Your task to perform on an android device: Open Chrome and go to settings Image 0: 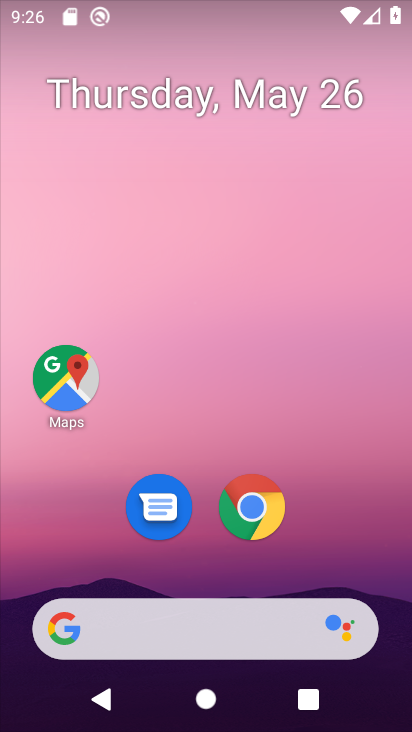
Step 0: drag from (371, 545) to (331, 151)
Your task to perform on an android device: Open Chrome and go to settings Image 1: 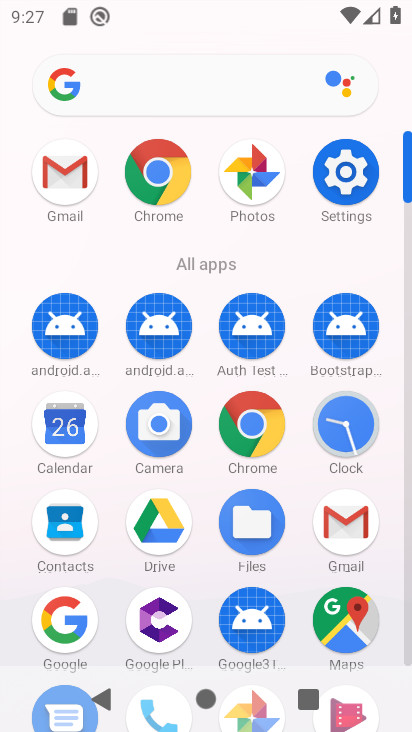
Step 1: click (255, 428)
Your task to perform on an android device: Open Chrome and go to settings Image 2: 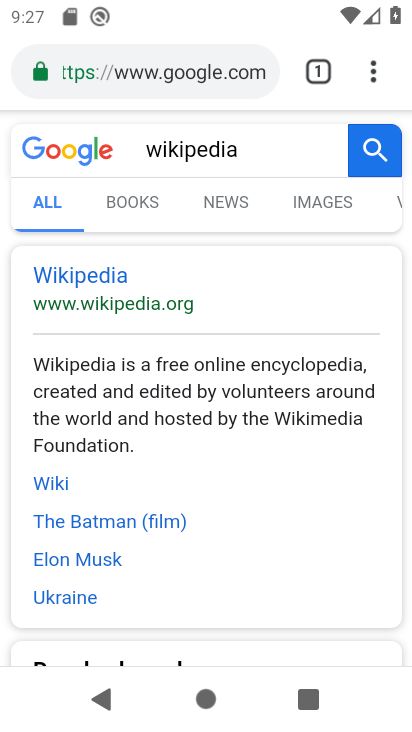
Step 2: click (373, 77)
Your task to perform on an android device: Open Chrome and go to settings Image 3: 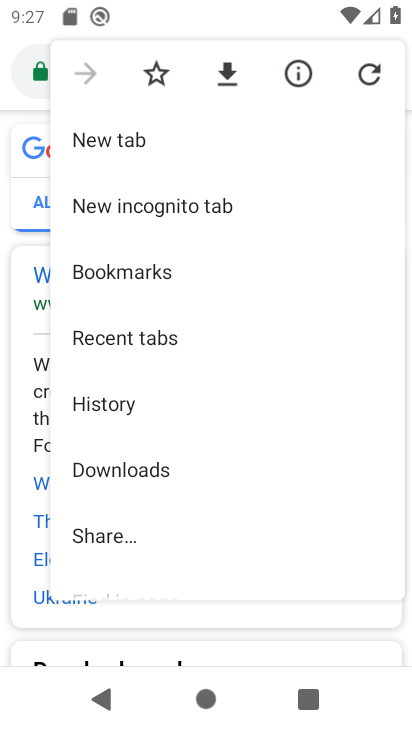
Step 3: drag from (302, 433) to (305, 306)
Your task to perform on an android device: Open Chrome and go to settings Image 4: 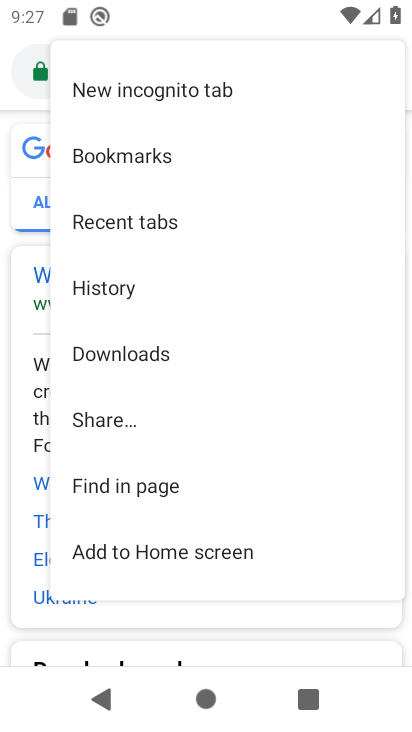
Step 4: drag from (310, 481) to (309, 249)
Your task to perform on an android device: Open Chrome and go to settings Image 5: 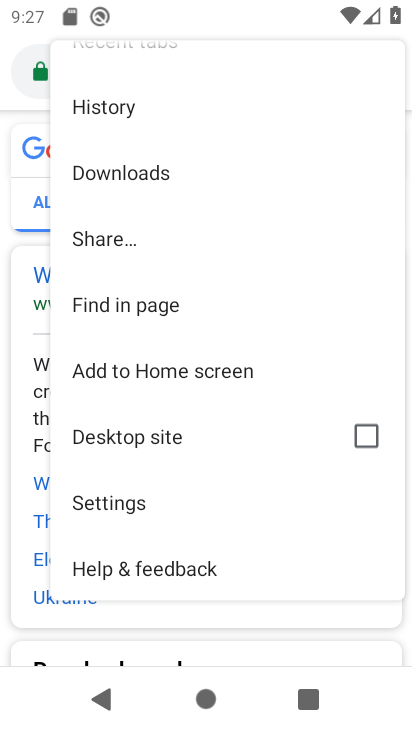
Step 5: click (136, 503)
Your task to perform on an android device: Open Chrome and go to settings Image 6: 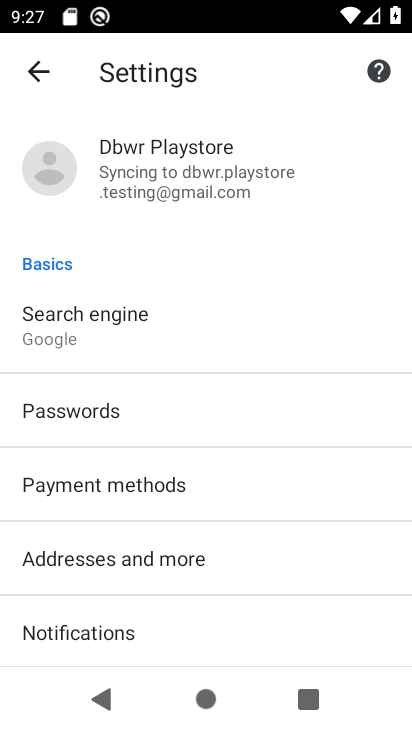
Step 6: task complete